Your task to perform on an android device: check storage Image 0: 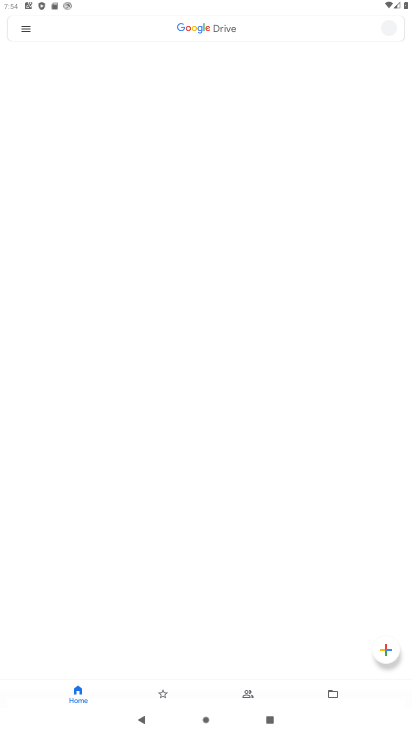
Step 0: press home button
Your task to perform on an android device: check storage Image 1: 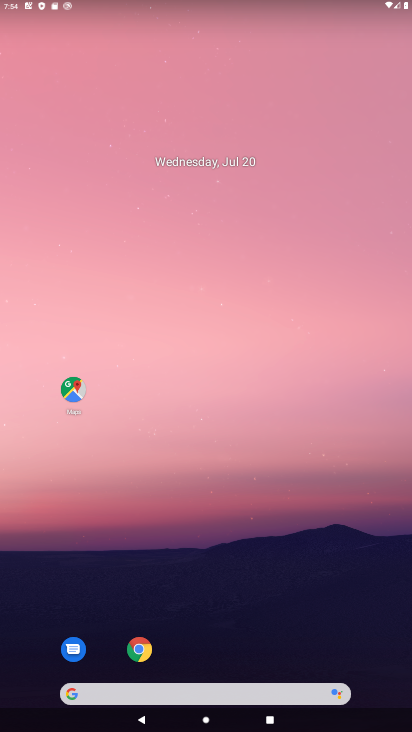
Step 1: drag from (194, 690) to (205, 190)
Your task to perform on an android device: check storage Image 2: 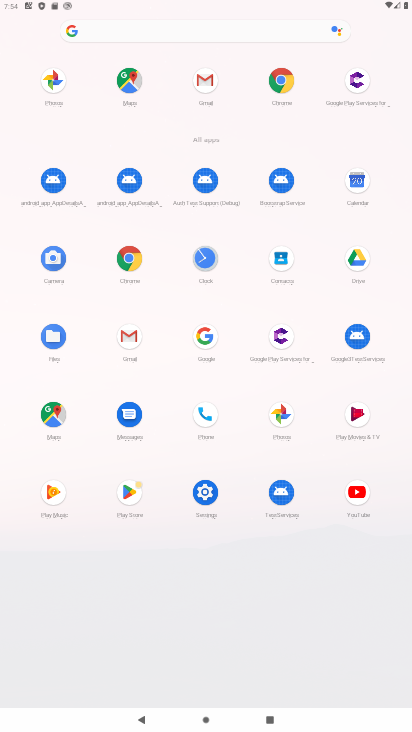
Step 2: click (207, 494)
Your task to perform on an android device: check storage Image 3: 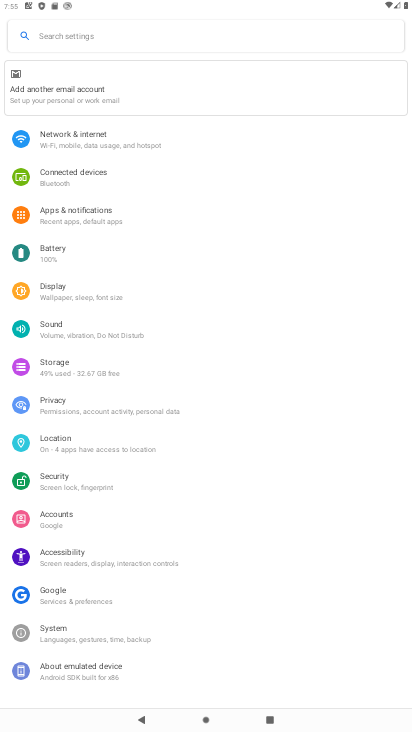
Step 3: click (70, 374)
Your task to perform on an android device: check storage Image 4: 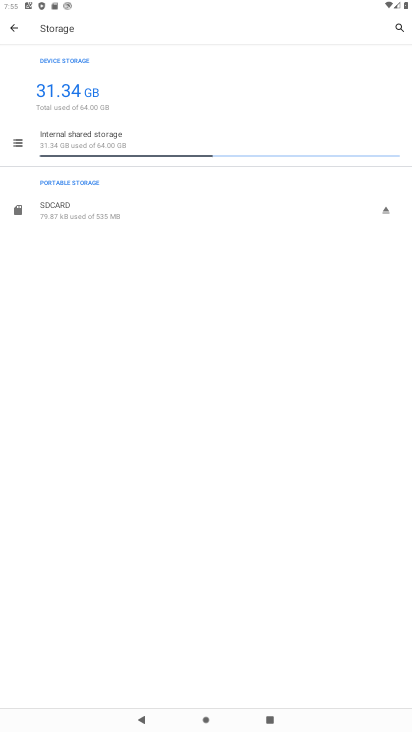
Step 4: task complete